Your task to perform on an android device: Open Google Chrome and click the shortcut for Amazon.com Image 0: 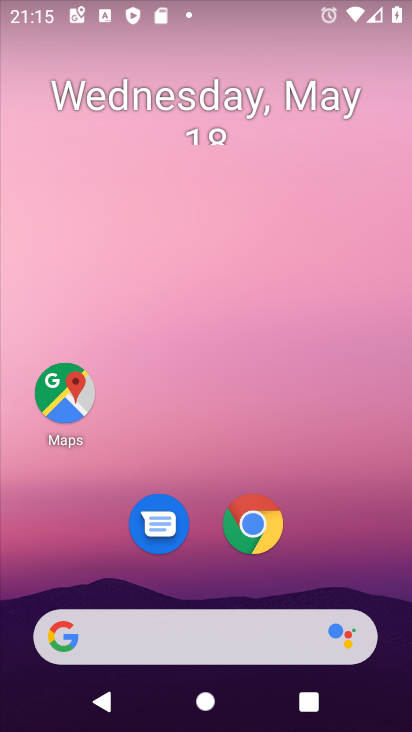
Step 0: click (258, 494)
Your task to perform on an android device: Open Google Chrome and click the shortcut for Amazon.com Image 1: 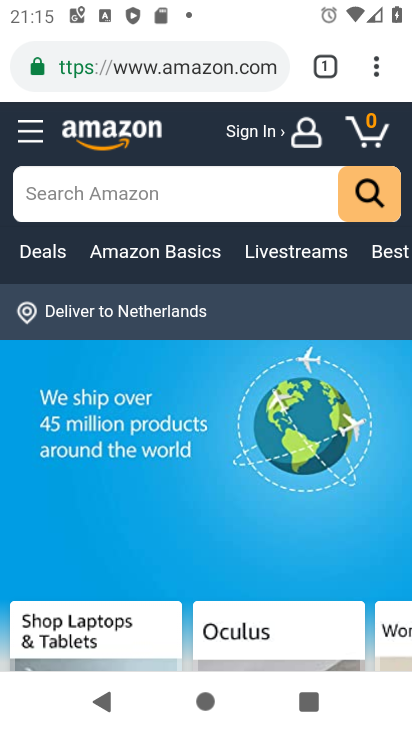
Step 1: click (371, 68)
Your task to perform on an android device: Open Google Chrome and click the shortcut for Amazon.com Image 2: 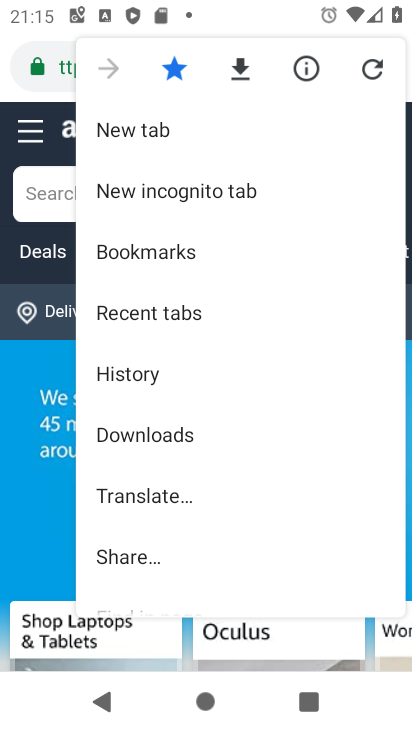
Step 2: click (278, 131)
Your task to perform on an android device: Open Google Chrome and click the shortcut for Amazon.com Image 3: 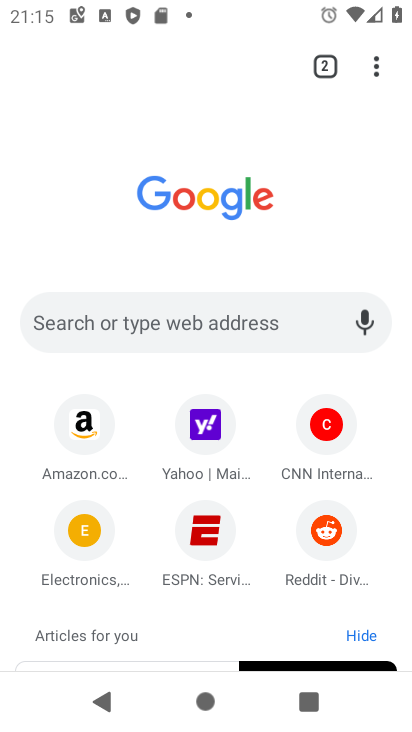
Step 3: click (87, 409)
Your task to perform on an android device: Open Google Chrome and click the shortcut for Amazon.com Image 4: 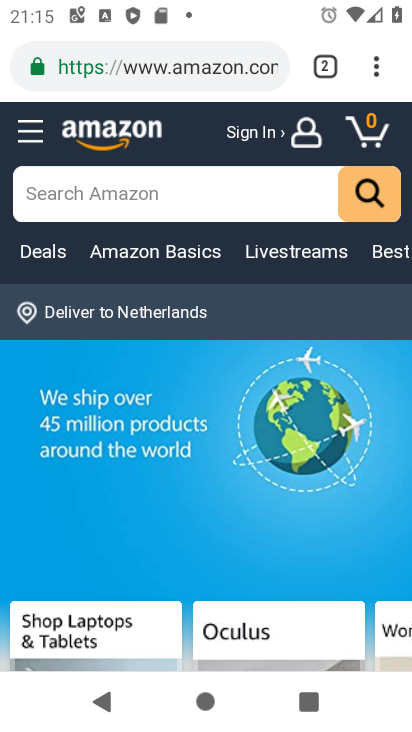
Step 4: task complete